Your task to perform on an android device: Open Youtube and go to the subscriptions tab Image 0: 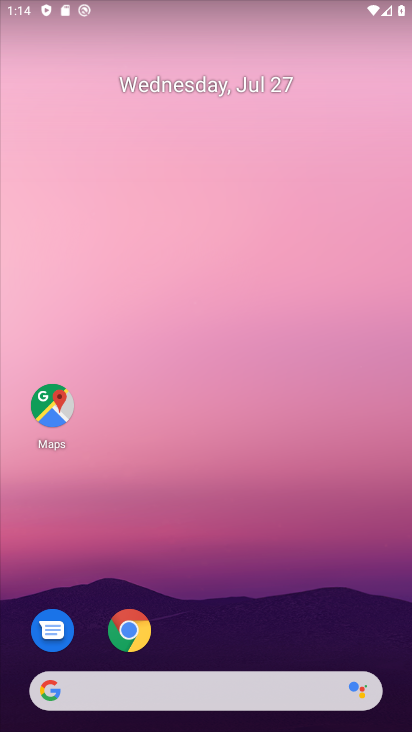
Step 0: drag from (197, 687) to (216, 114)
Your task to perform on an android device: Open Youtube and go to the subscriptions tab Image 1: 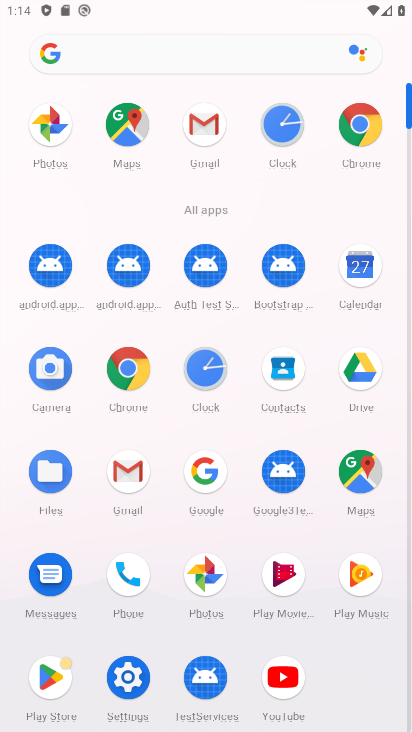
Step 1: click (370, 470)
Your task to perform on an android device: Open Youtube and go to the subscriptions tab Image 2: 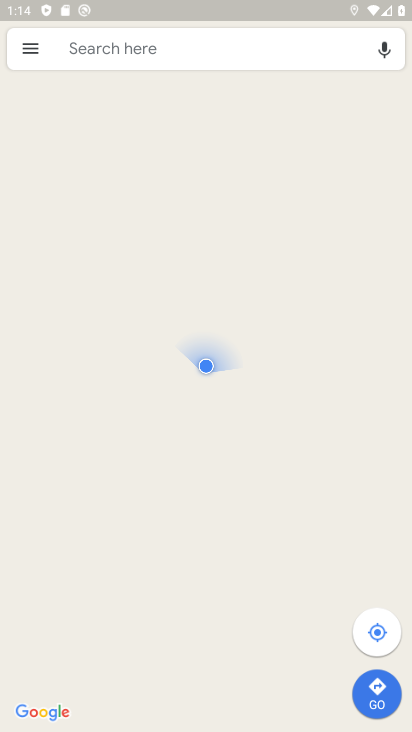
Step 2: press home button
Your task to perform on an android device: Open Youtube and go to the subscriptions tab Image 3: 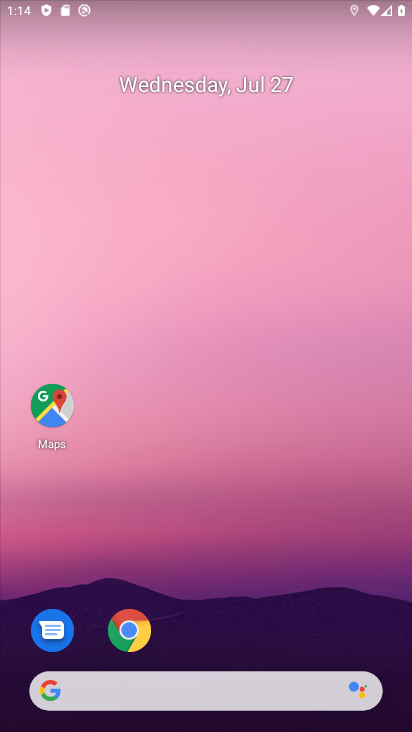
Step 3: drag from (210, 690) to (166, 122)
Your task to perform on an android device: Open Youtube and go to the subscriptions tab Image 4: 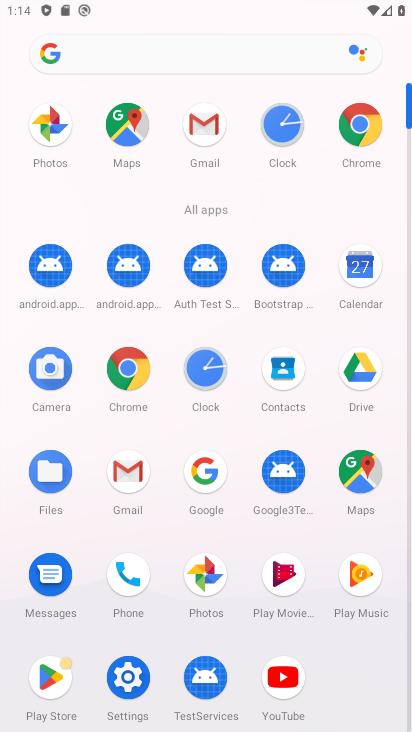
Step 4: click (270, 690)
Your task to perform on an android device: Open Youtube and go to the subscriptions tab Image 5: 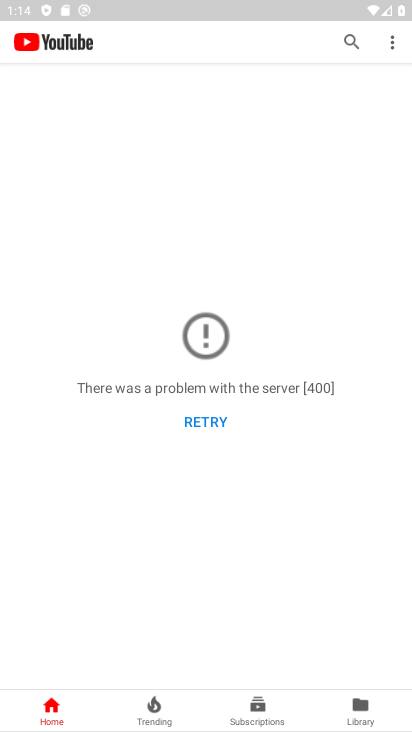
Step 5: click (266, 704)
Your task to perform on an android device: Open Youtube and go to the subscriptions tab Image 6: 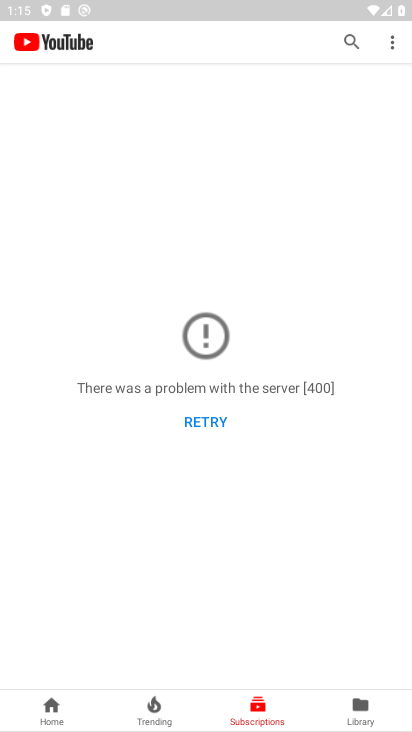
Step 6: task complete